Your task to perform on an android device: Turn on the flashlight Image 0: 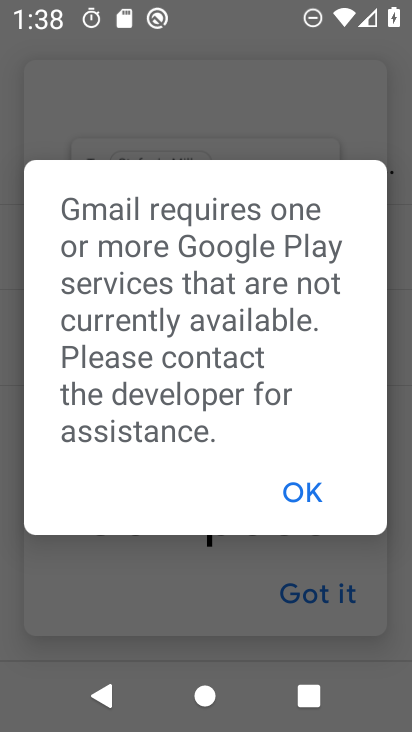
Step 0: press home button
Your task to perform on an android device: Turn on the flashlight Image 1: 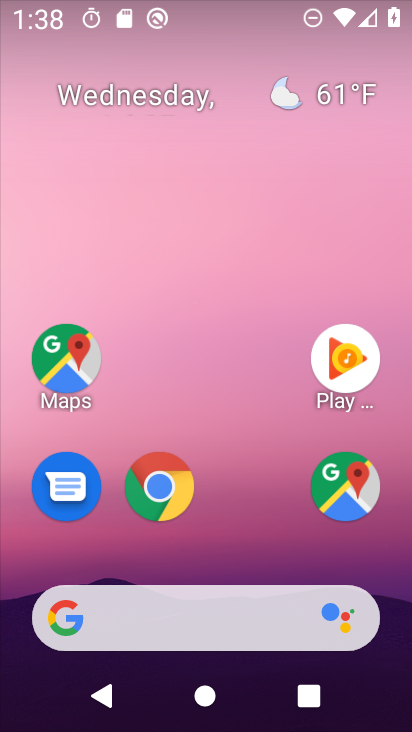
Step 1: drag from (230, 3) to (252, 282)
Your task to perform on an android device: Turn on the flashlight Image 2: 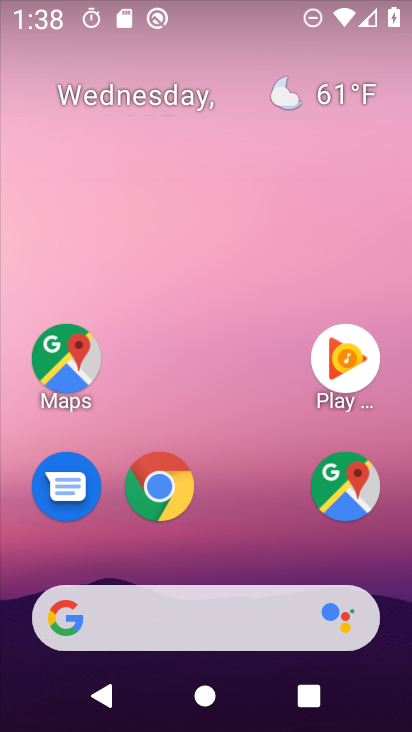
Step 2: drag from (232, 1) to (261, 366)
Your task to perform on an android device: Turn on the flashlight Image 3: 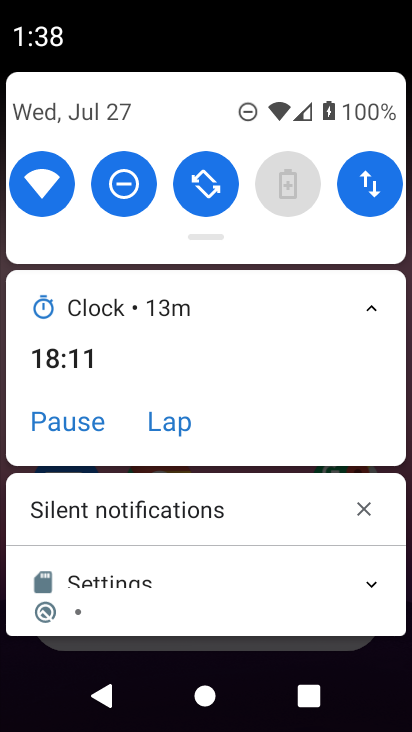
Step 3: drag from (215, 108) to (241, 335)
Your task to perform on an android device: Turn on the flashlight Image 4: 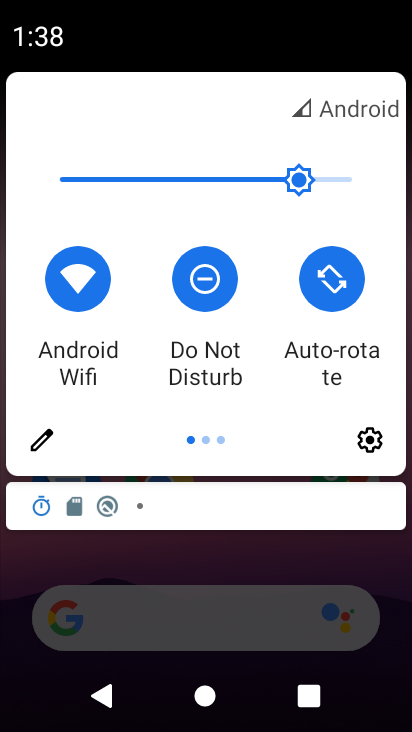
Step 4: click (39, 450)
Your task to perform on an android device: Turn on the flashlight Image 5: 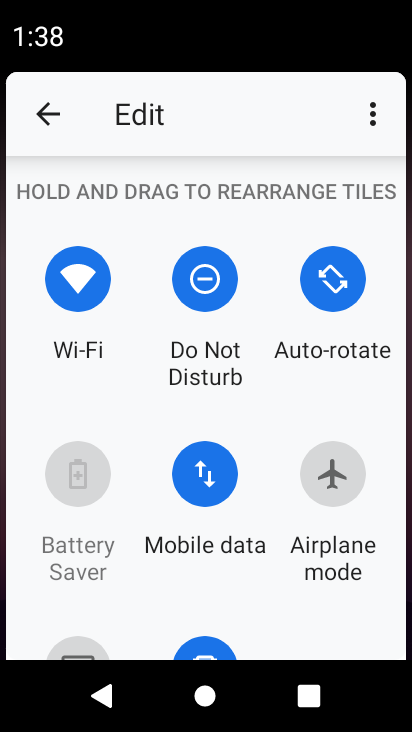
Step 5: task complete